Your task to perform on an android device: turn off picture-in-picture Image 0: 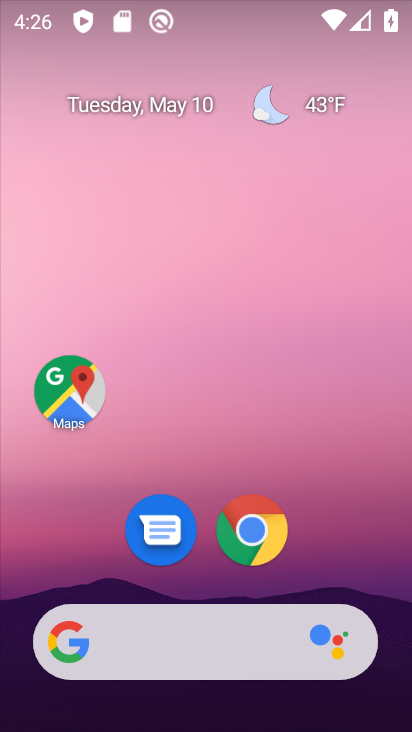
Step 0: click (276, 531)
Your task to perform on an android device: turn off picture-in-picture Image 1: 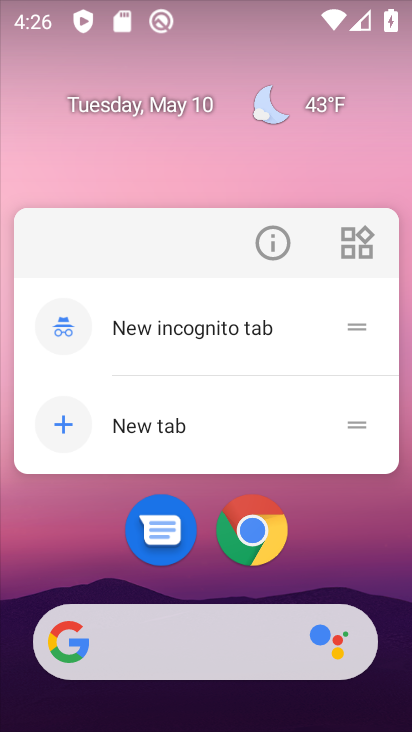
Step 1: click (275, 252)
Your task to perform on an android device: turn off picture-in-picture Image 2: 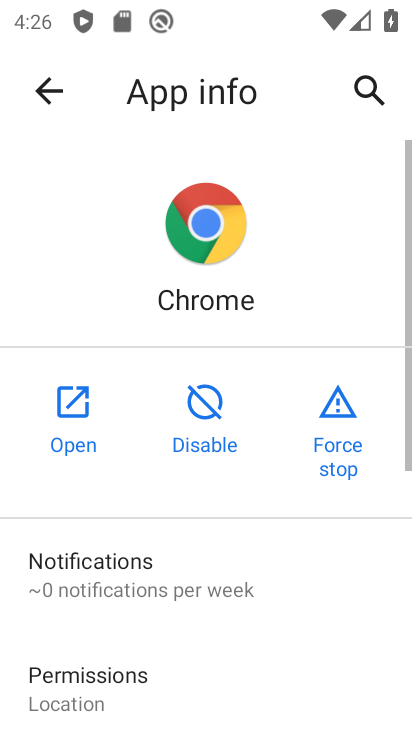
Step 2: drag from (241, 666) to (296, 191)
Your task to perform on an android device: turn off picture-in-picture Image 3: 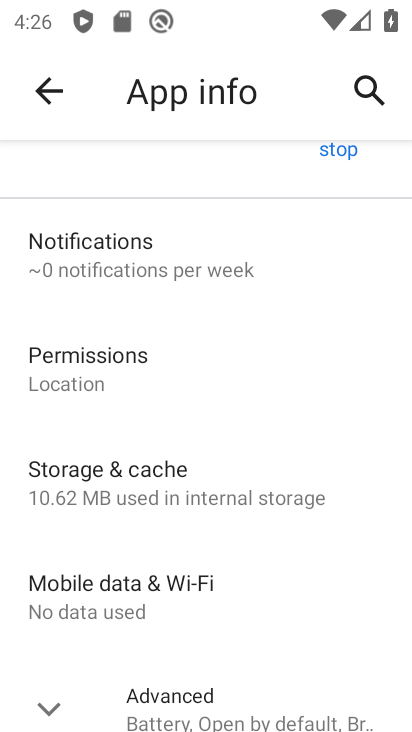
Step 3: click (211, 693)
Your task to perform on an android device: turn off picture-in-picture Image 4: 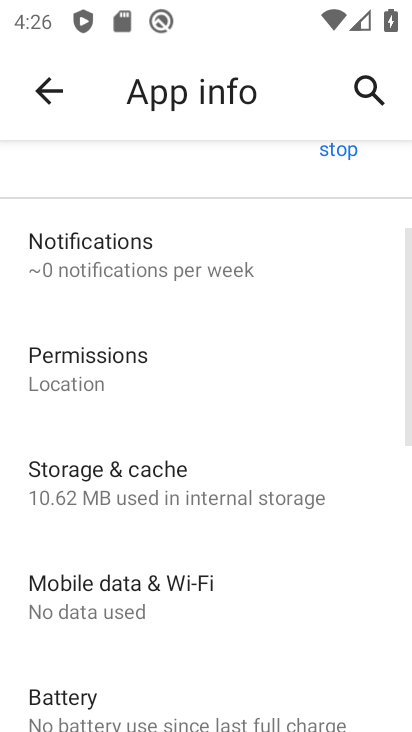
Step 4: drag from (271, 626) to (300, 257)
Your task to perform on an android device: turn off picture-in-picture Image 5: 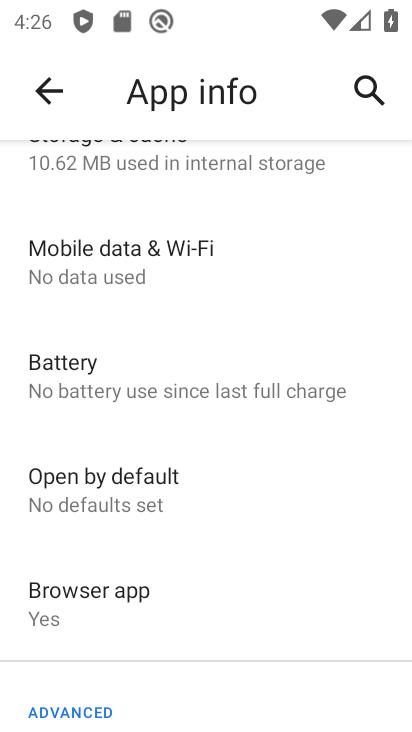
Step 5: drag from (299, 339) to (308, 280)
Your task to perform on an android device: turn off picture-in-picture Image 6: 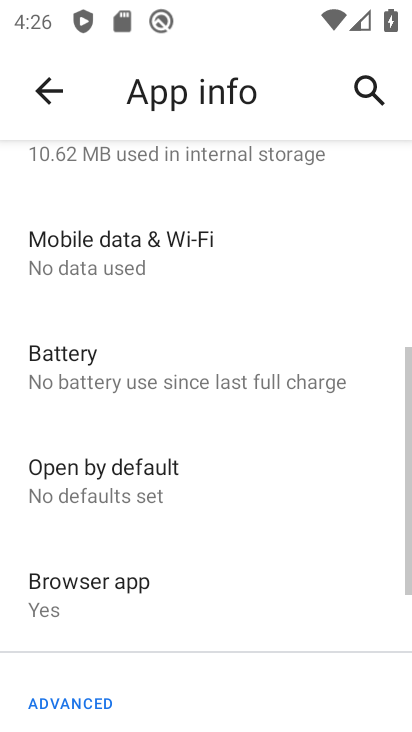
Step 6: drag from (208, 687) to (243, 359)
Your task to perform on an android device: turn off picture-in-picture Image 7: 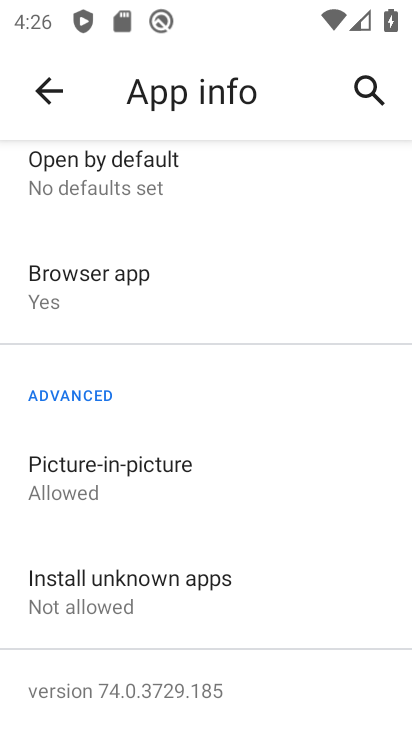
Step 7: click (170, 487)
Your task to perform on an android device: turn off picture-in-picture Image 8: 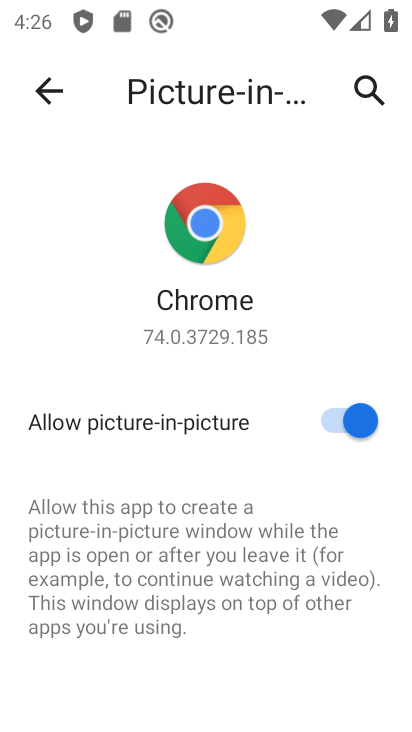
Step 8: click (352, 425)
Your task to perform on an android device: turn off picture-in-picture Image 9: 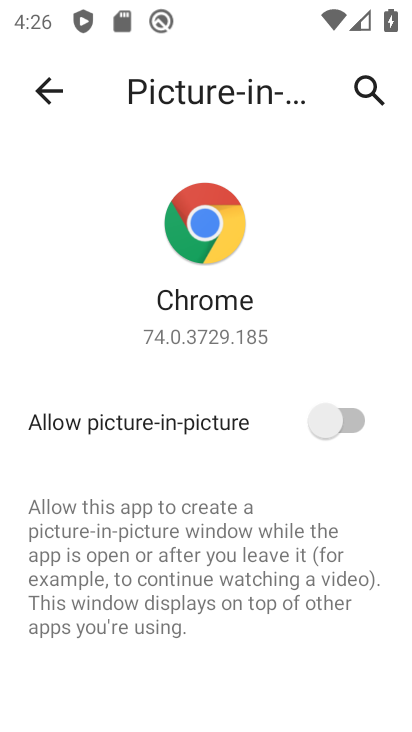
Step 9: task complete